Your task to perform on an android device: clear history in the chrome app Image 0: 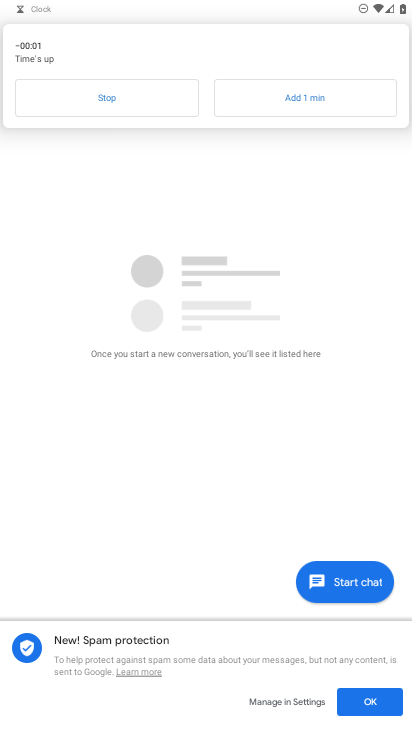
Step 0: press home button
Your task to perform on an android device: clear history in the chrome app Image 1: 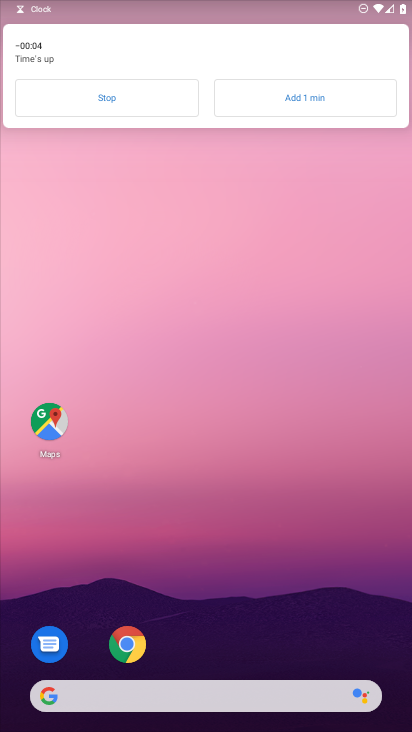
Step 1: click (138, 97)
Your task to perform on an android device: clear history in the chrome app Image 2: 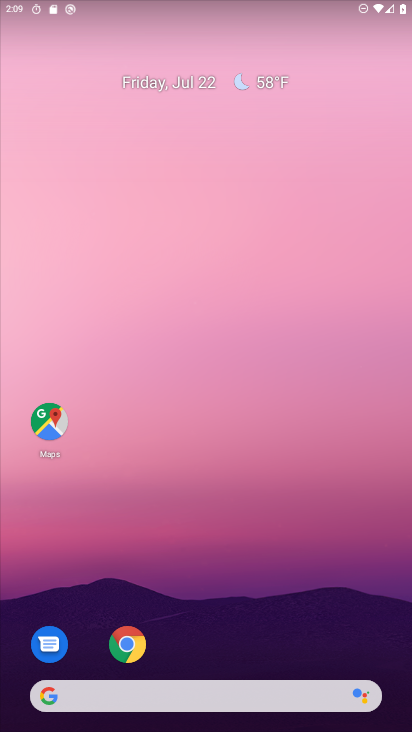
Step 2: click (145, 648)
Your task to perform on an android device: clear history in the chrome app Image 3: 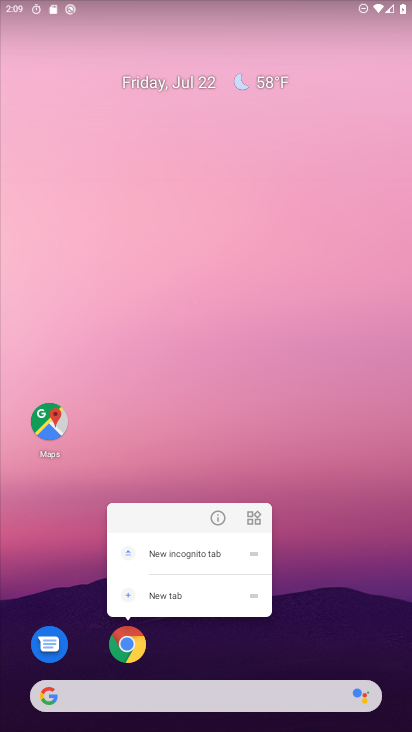
Step 3: click (140, 650)
Your task to perform on an android device: clear history in the chrome app Image 4: 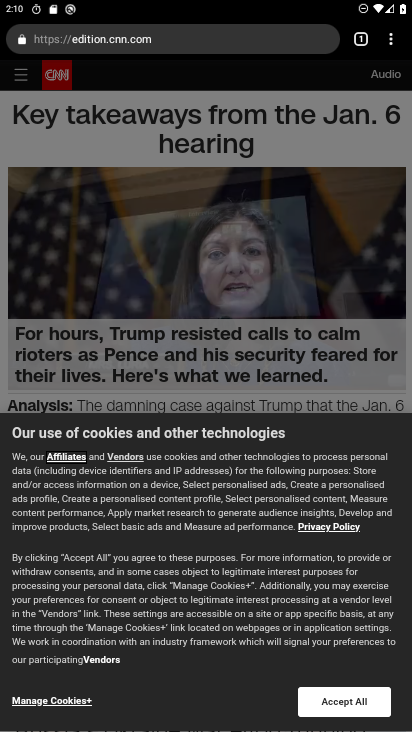
Step 4: click (388, 40)
Your task to perform on an android device: clear history in the chrome app Image 5: 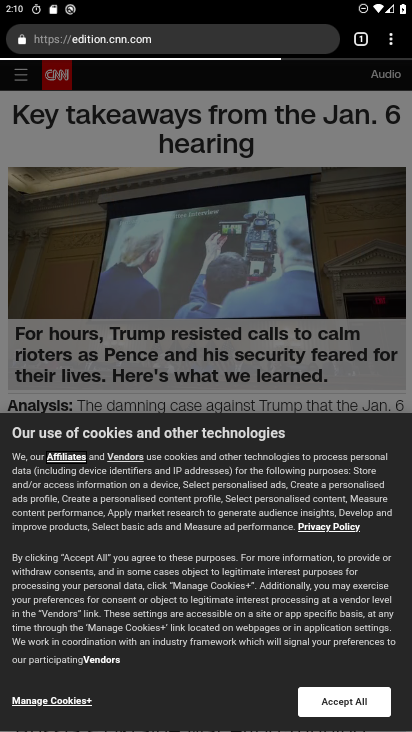
Step 5: drag from (389, 42) to (248, 266)
Your task to perform on an android device: clear history in the chrome app Image 6: 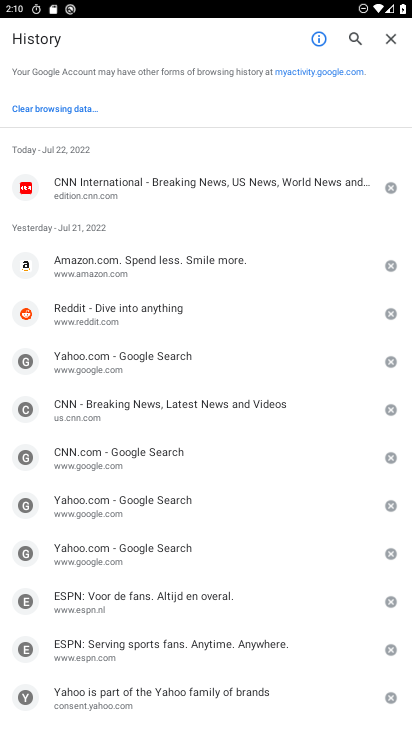
Step 6: click (53, 110)
Your task to perform on an android device: clear history in the chrome app Image 7: 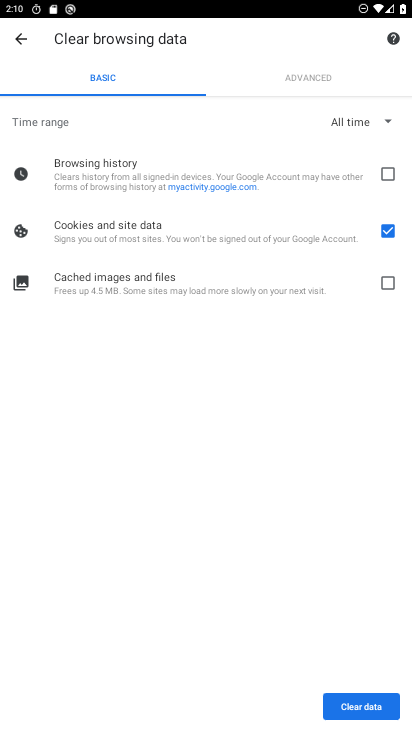
Step 7: click (383, 187)
Your task to perform on an android device: clear history in the chrome app Image 8: 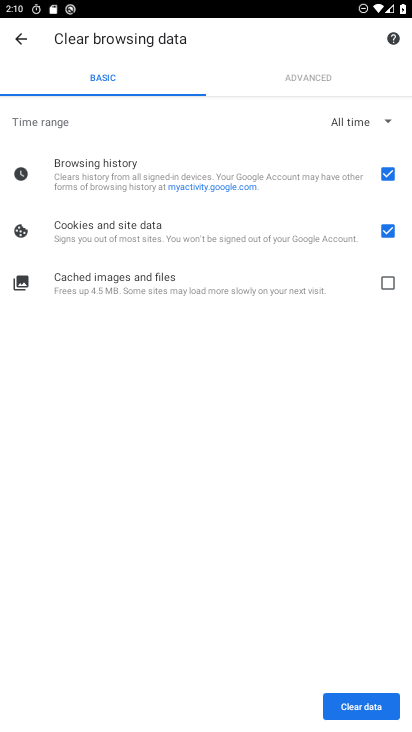
Step 8: click (390, 280)
Your task to perform on an android device: clear history in the chrome app Image 9: 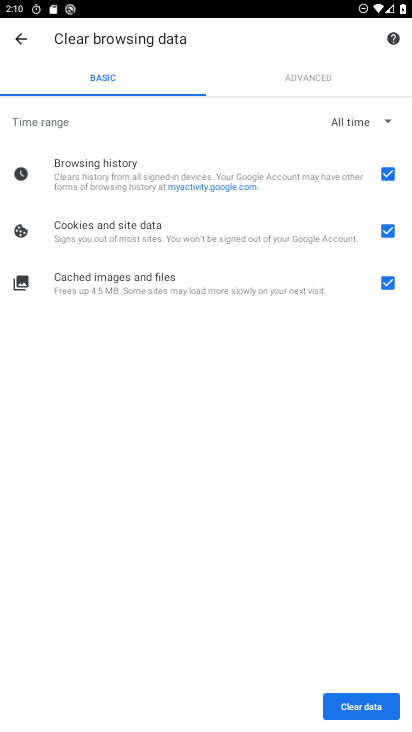
Step 9: click (344, 709)
Your task to perform on an android device: clear history in the chrome app Image 10: 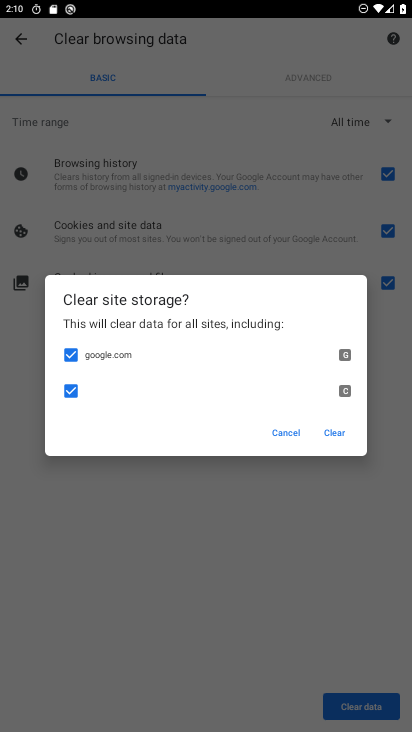
Step 10: click (324, 427)
Your task to perform on an android device: clear history in the chrome app Image 11: 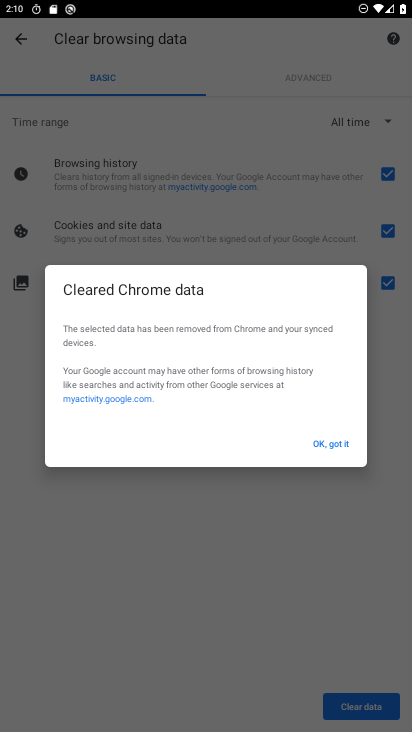
Step 11: click (353, 438)
Your task to perform on an android device: clear history in the chrome app Image 12: 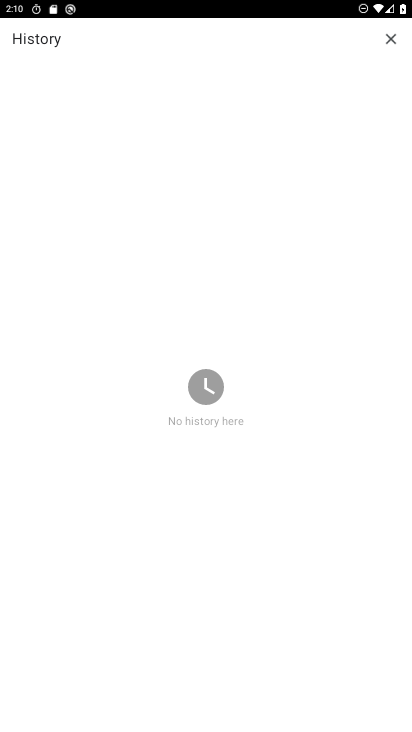
Step 12: task complete